Your task to perform on an android device: Open privacy settings Image 0: 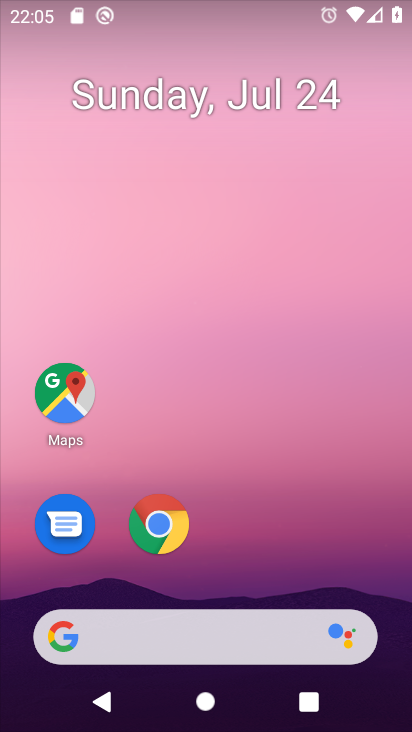
Step 0: drag from (261, 578) to (276, 70)
Your task to perform on an android device: Open privacy settings Image 1: 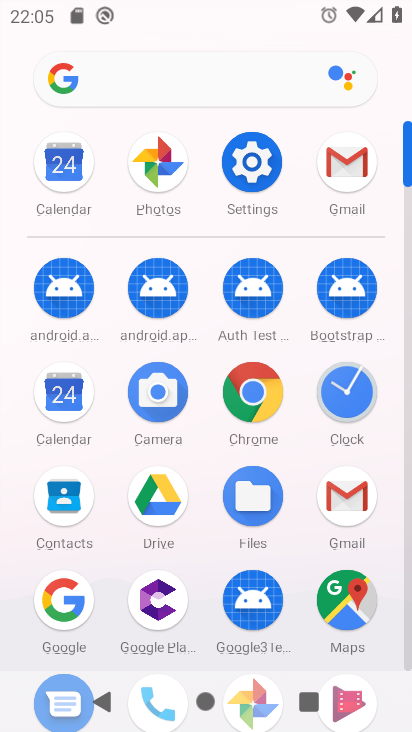
Step 1: click (260, 169)
Your task to perform on an android device: Open privacy settings Image 2: 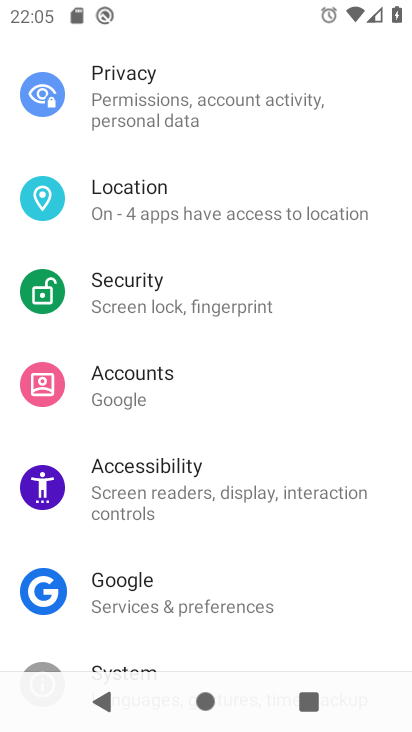
Step 2: click (209, 109)
Your task to perform on an android device: Open privacy settings Image 3: 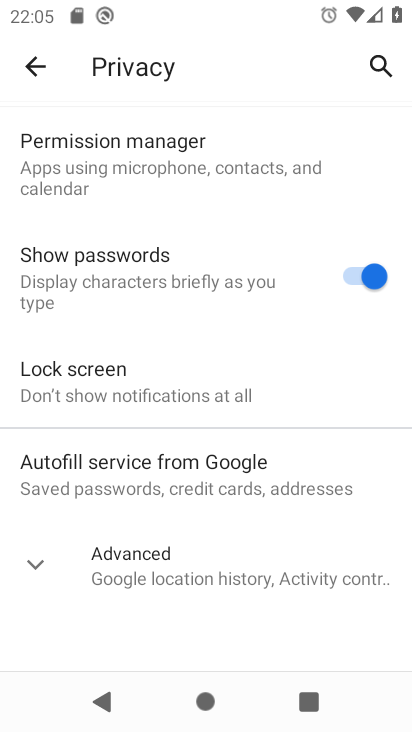
Step 3: task complete